Your task to perform on an android device: Open the phone app and click the voicemail tab. Image 0: 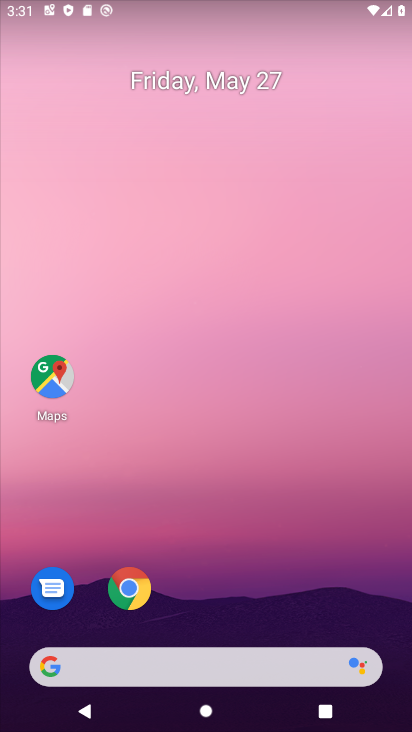
Step 0: drag from (214, 636) to (202, 47)
Your task to perform on an android device: Open the phone app and click the voicemail tab. Image 1: 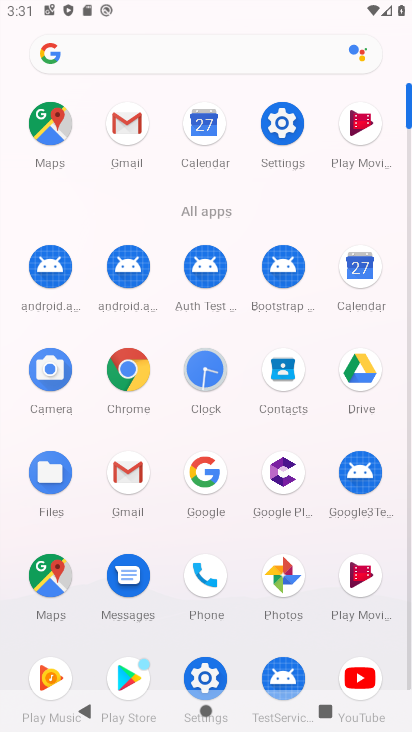
Step 1: click (201, 570)
Your task to perform on an android device: Open the phone app and click the voicemail tab. Image 2: 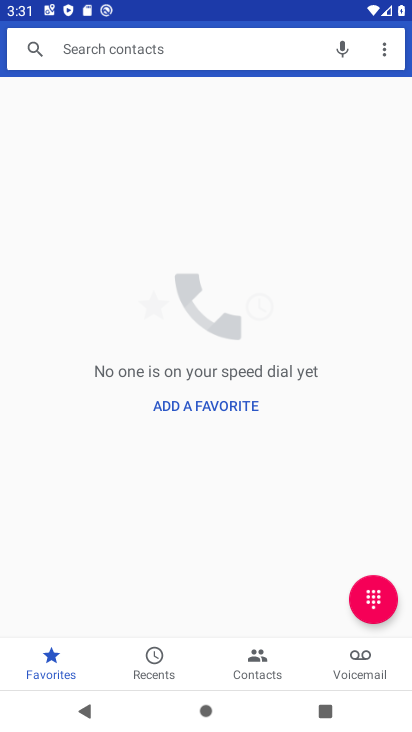
Step 2: click (352, 662)
Your task to perform on an android device: Open the phone app and click the voicemail tab. Image 3: 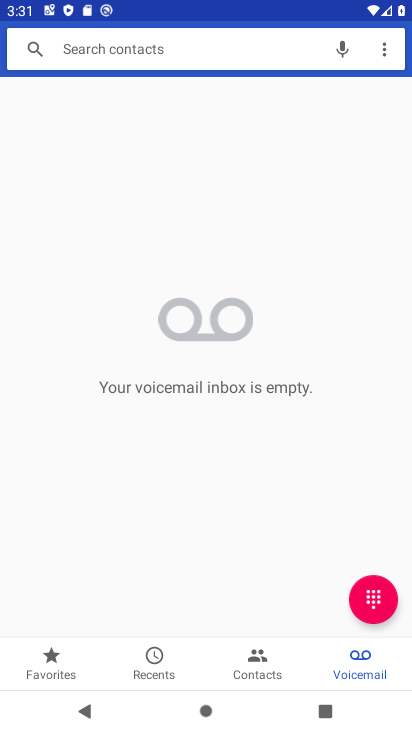
Step 3: task complete